Your task to perform on an android device: Open the map Image 0: 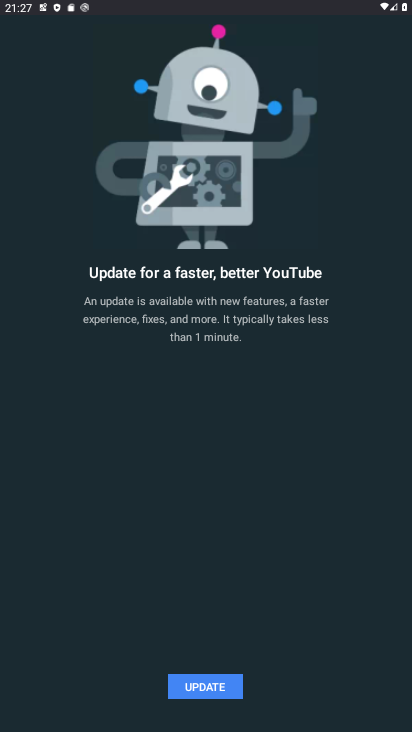
Step 0: press home button
Your task to perform on an android device: Open the map Image 1: 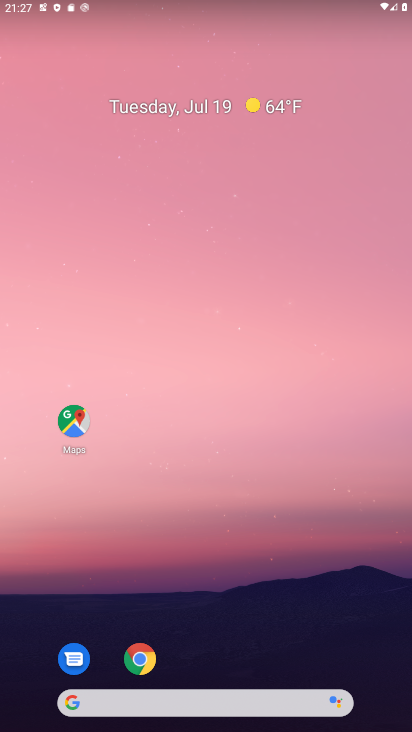
Step 1: click (61, 411)
Your task to perform on an android device: Open the map Image 2: 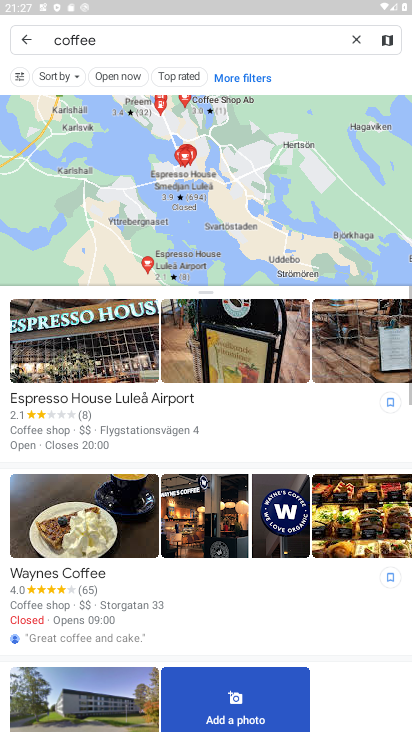
Step 2: task complete